Your task to perform on an android device: Open calendar and show me the second week of next month Image 0: 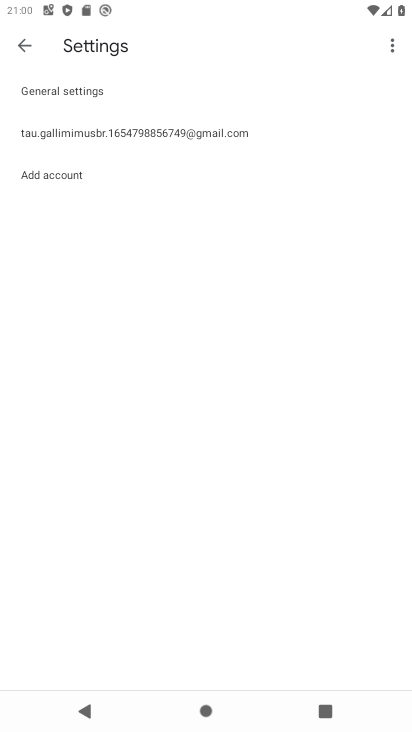
Step 0: press home button
Your task to perform on an android device: Open calendar and show me the second week of next month Image 1: 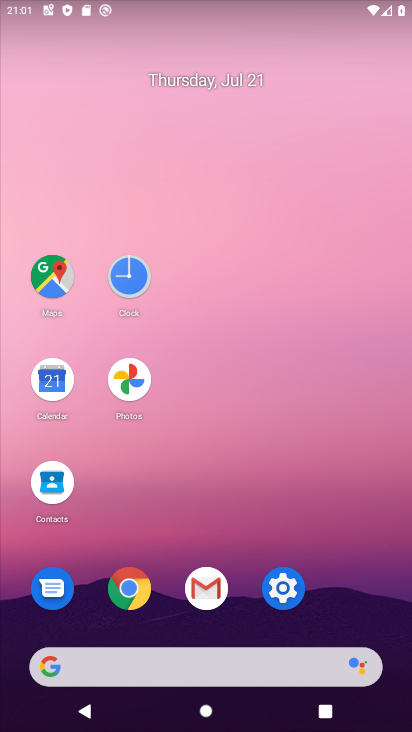
Step 1: click (51, 368)
Your task to perform on an android device: Open calendar and show me the second week of next month Image 2: 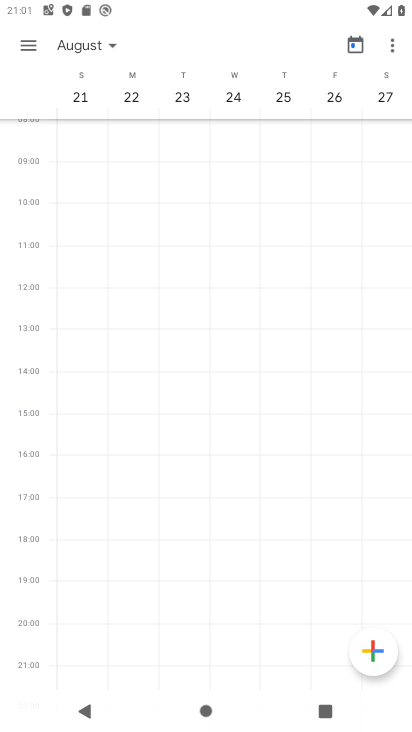
Step 2: click (106, 41)
Your task to perform on an android device: Open calendar and show me the second week of next month Image 3: 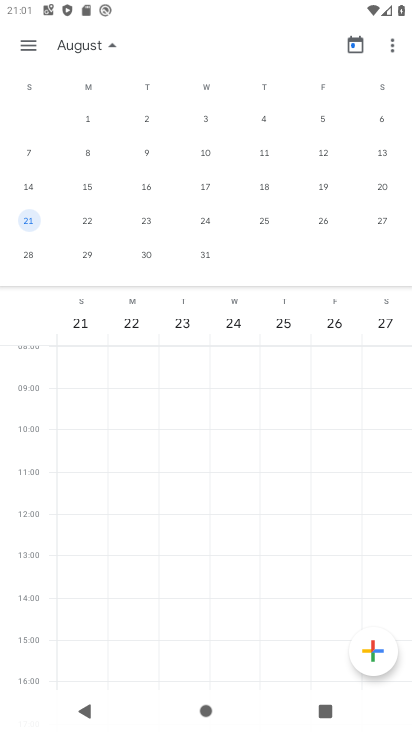
Step 3: click (87, 149)
Your task to perform on an android device: Open calendar and show me the second week of next month Image 4: 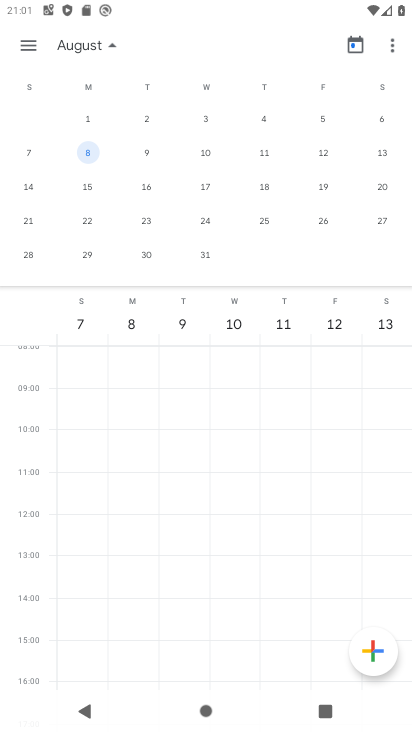
Step 4: task complete